Your task to perform on an android device: find snoozed emails in the gmail app Image 0: 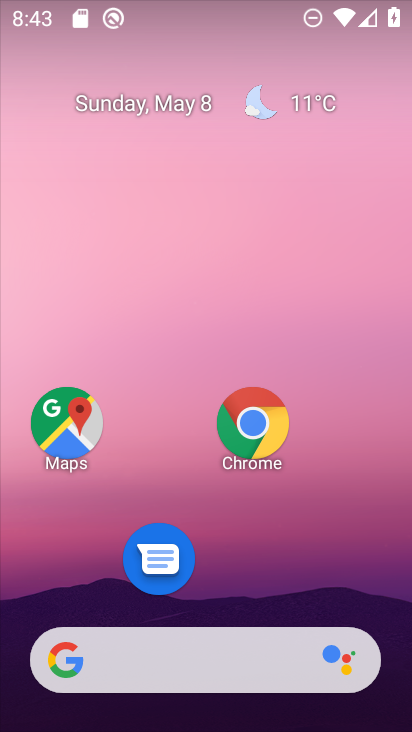
Step 0: drag from (371, 565) to (385, 18)
Your task to perform on an android device: find snoozed emails in the gmail app Image 1: 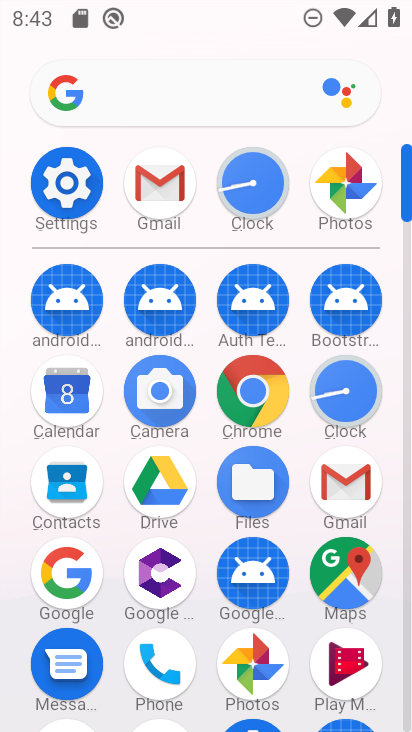
Step 1: click (152, 191)
Your task to perform on an android device: find snoozed emails in the gmail app Image 2: 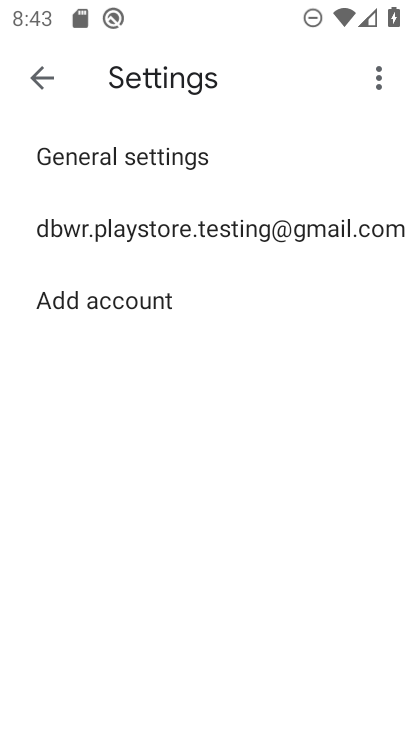
Step 2: click (36, 78)
Your task to perform on an android device: find snoozed emails in the gmail app Image 3: 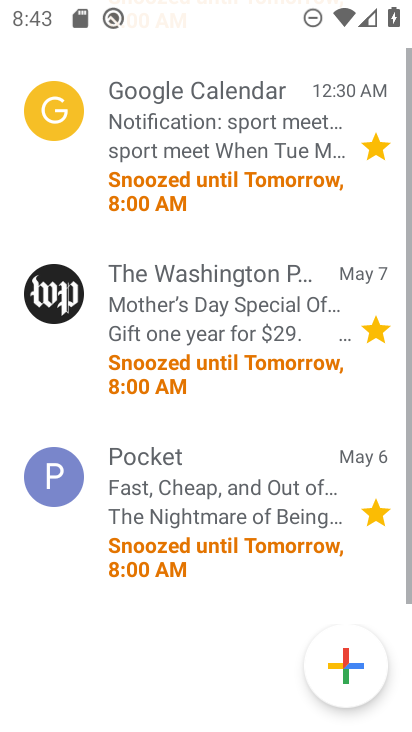
Step 3: drag from (174, 305) to (181, 557)
Your task to perform on an android device: find snoozed emails in the gmail app Image 4: 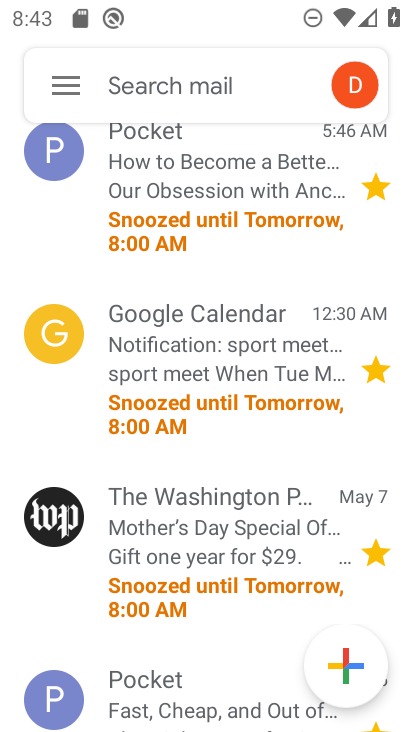
Step 4: click (78, 81)
Your task to perform on an android device: find snoozed emails in the gmail app Image 5: 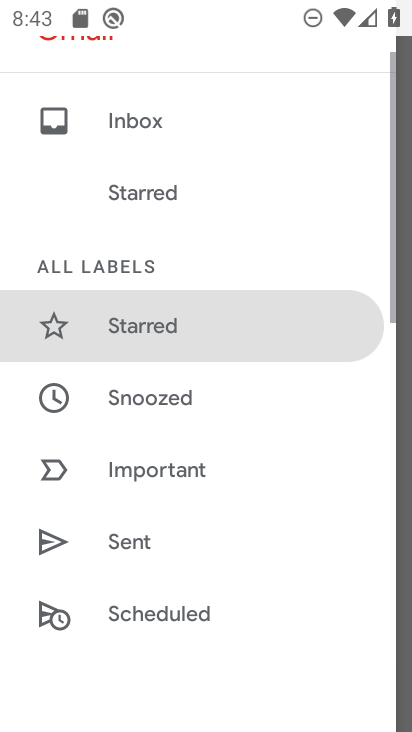
Step 5: drag from (233, 257) to (262, 208)
Your task to perform on an android device: find snoozed emails in the gmail app Image 6: 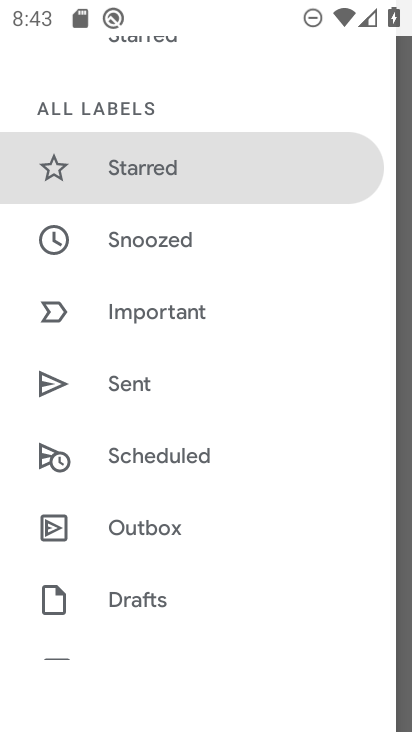
Step 6: click (146, 235)
Your task to perform on an android device: find snoozed emails in the gmail app Image 7: 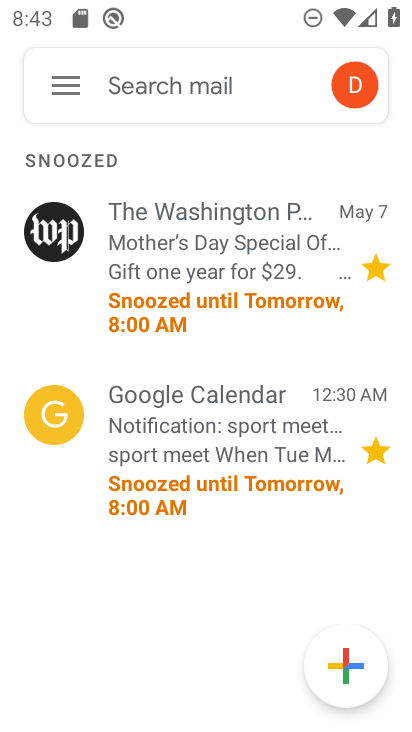
Step 7: task complete